Your task to perform on an android device: empty trash in google photos Image 0: 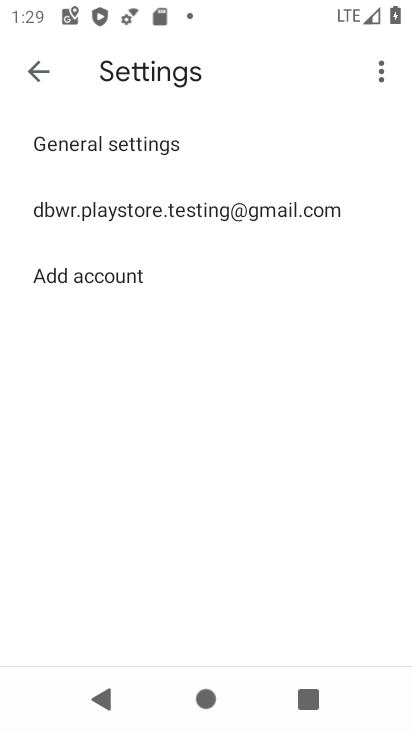
Step 0: press home button
Your task to perform on an android device: empty trash in google photos Image 1: 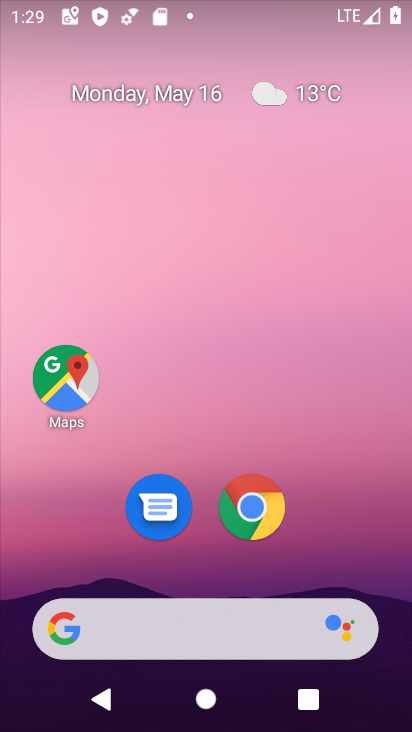
Step 1: drag from (338, 555) to (201, 32)
Your task to perform on an android device: empty trash in google photos Image 2: 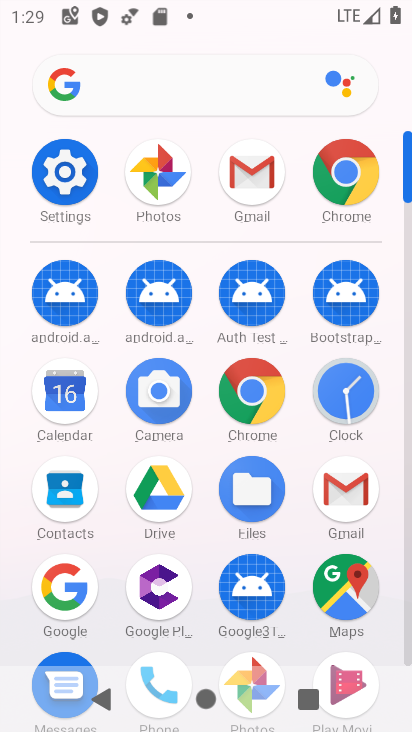
Step 2: click (153, 173)
Your task to perform on an android device: empty trash in google photos Image 3: 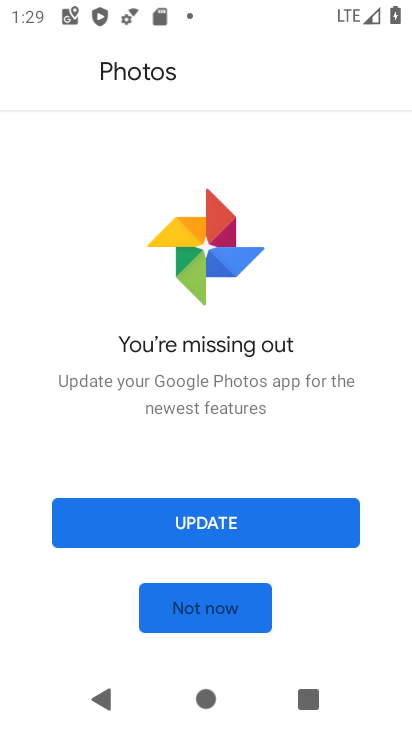
Step 3: click (238, 508)
Your task to perform on an android device: empty trash in google photos Image 4: 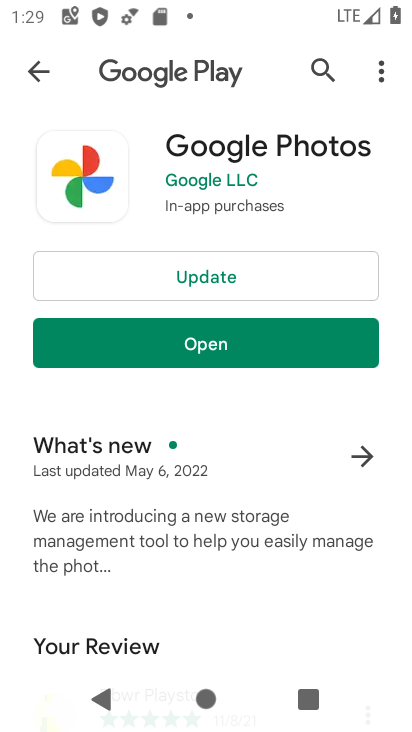
Step 4: click (228, 275)
Your task to perform on an android device: empty trash in google photos Image 5: 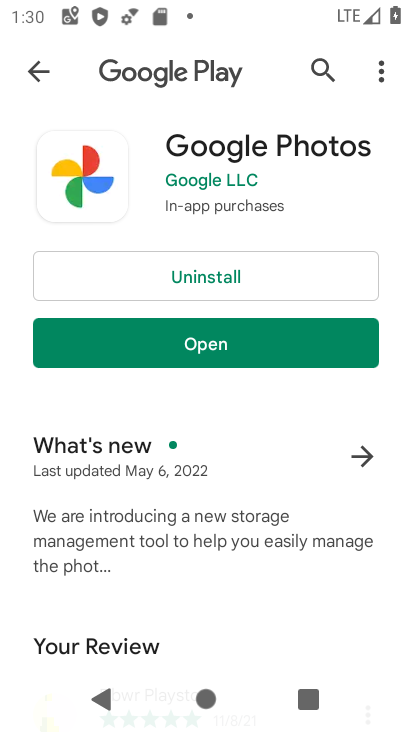
Step 5: click (276, 334)
Your task to perform on an android device: empty trash in google photos Image 6: 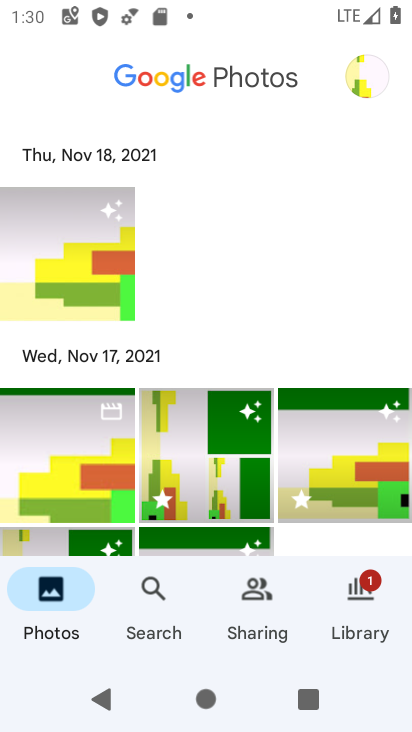
Step 6: click (370, 586)
Your task to perform on an android device: empty trash in google photos Image 7: 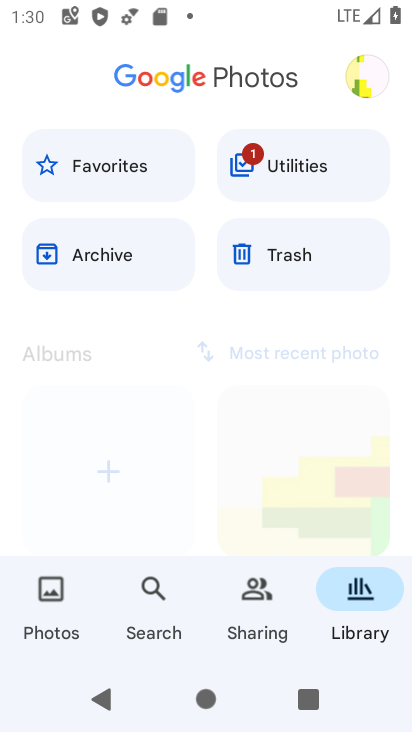
Step 7: click (283, 247)
Your task to perform on an android device: empty trash in google photos Image 8: 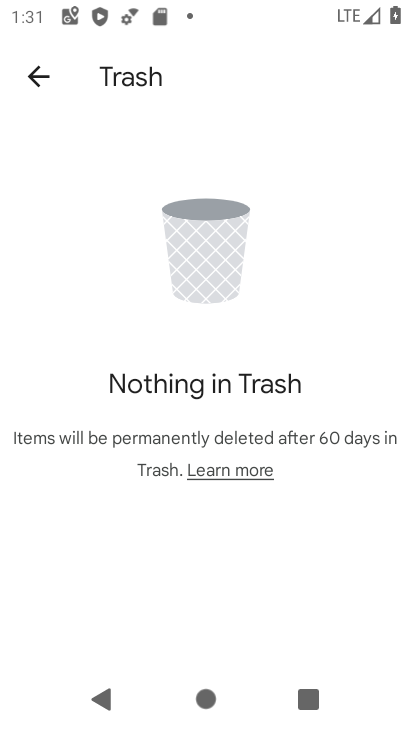
Step 8: task complete